Your task to perform on an android device: turn on priority inbox in the gmail app Image 0: 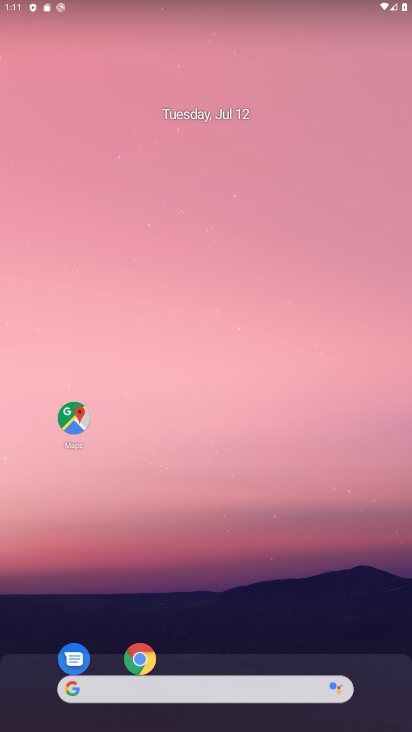
Step 0: drag from (234, 601) to (273, 122)
Your task to perform on an android device: turn on priority inbox in the gmail app Image 1: 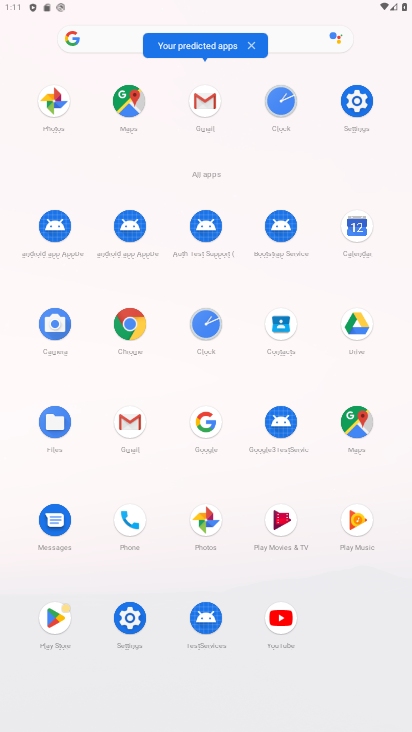
Step 1: click (143, 424)
Your task to perform on an android device: turn on priority inbox in the gmail app Image 2: 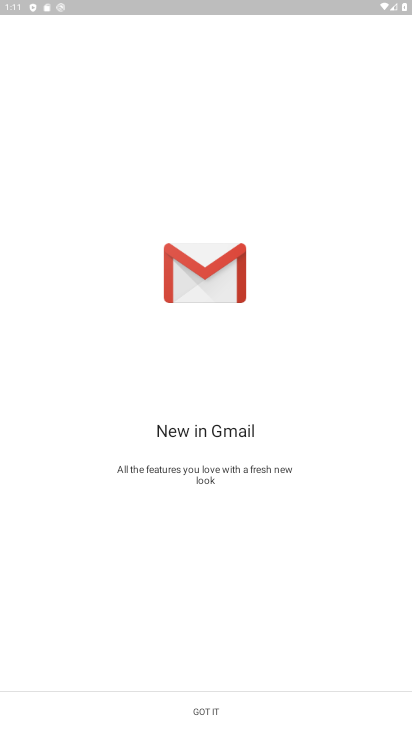
Step 2: click (222, 705)
Your task to perform on an android device: turn on priority inbox in the gmail app Image 3: 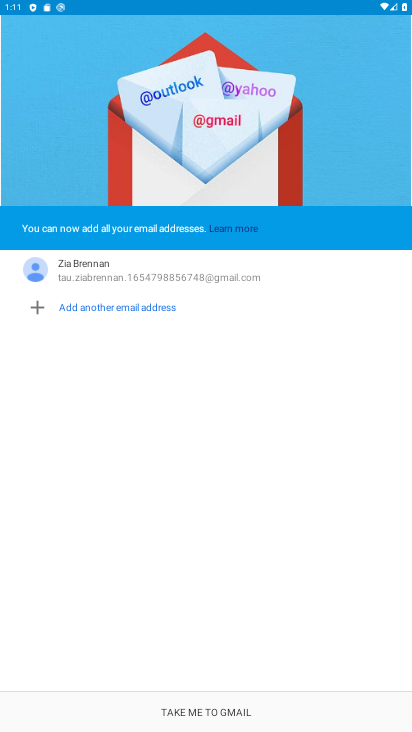
Step 3: click (212, 716)
Your task to perform on an android device: turn on priority inbox in the gmail app Image 4: 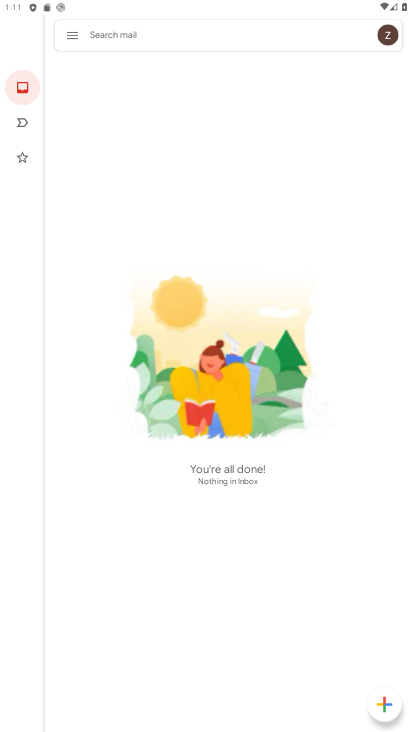
Step 4: click (74, 36)
Your task to perform on an android device: turn on priority inbox in the gmail app Image 5: 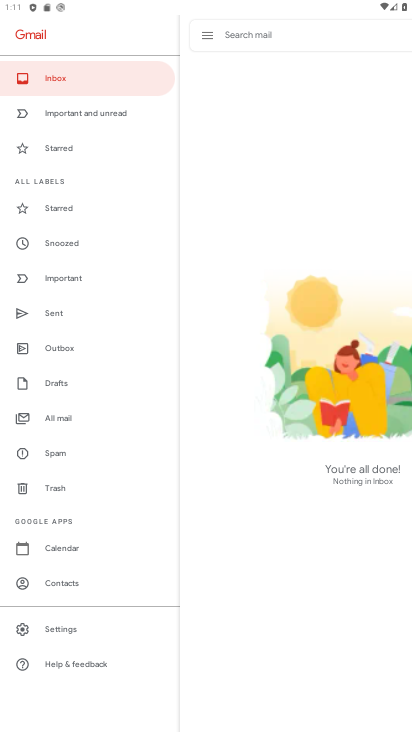
Step 5: click (46, 621)
Your task to perform on an android device: turn on priority inbox in the gmail app Image 6: 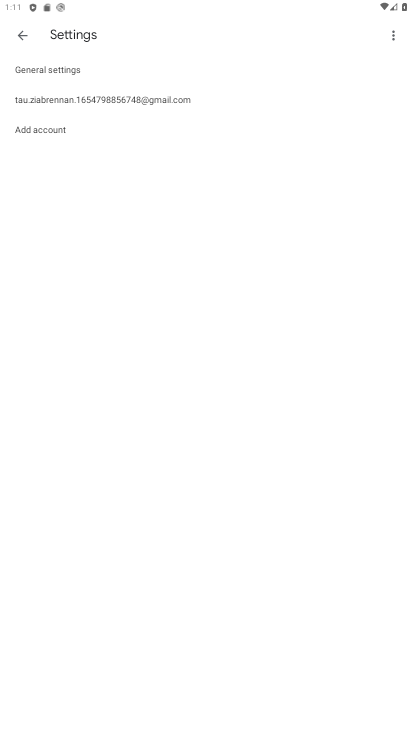
Step 6: click (120, 102)
Your task to perform on an android device: turn on priority inbox in the gmail app Image 7: 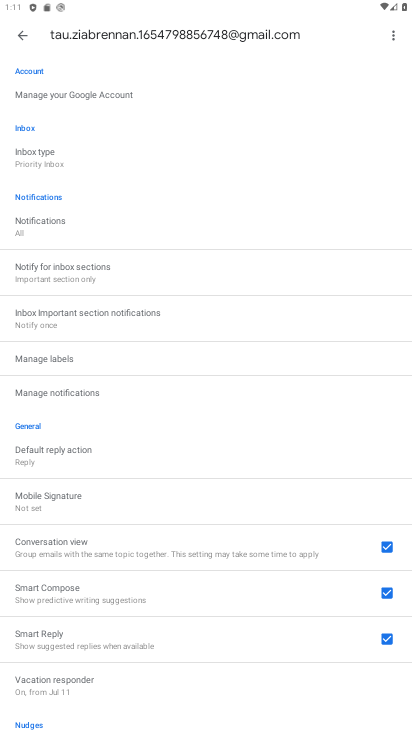
Step 7: click (59, 156)
Your task to perform on an android device: turn on priority inbox in the gmail app Image 8: 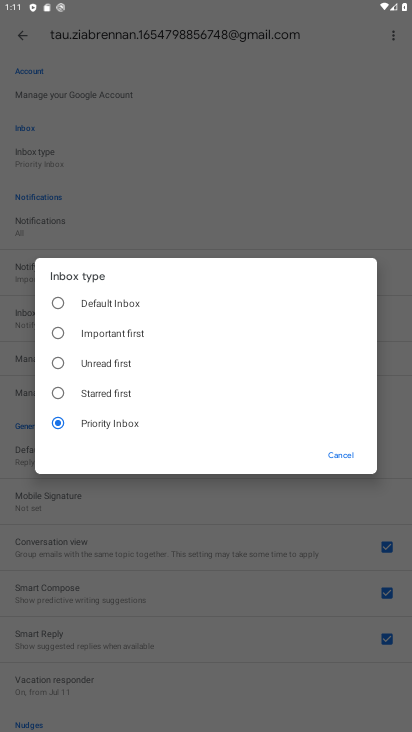
Step 8: task complete